Your task to perform on an android device: Go to sound settings Image 0: 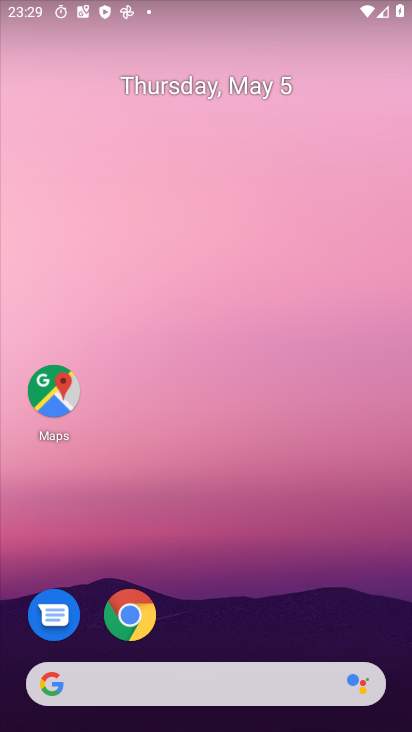
Step 0: drag from (207, 546) to (232, 148)
Your task to perform on an android device: Go to sound settings Image 1: 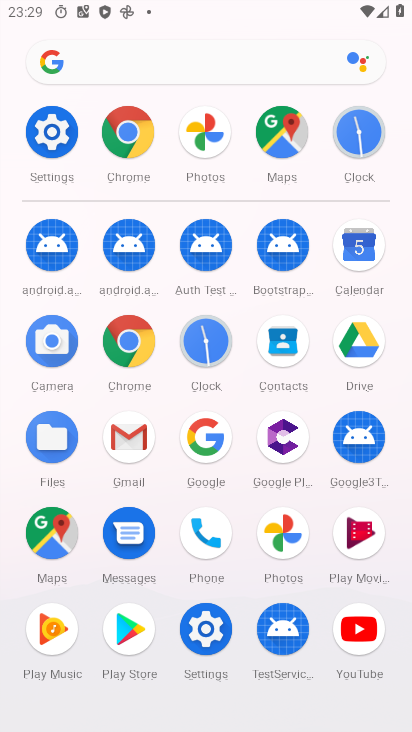
Step 1: click (55, 125)
Your task to perform on an android device: Go to sound settings Image 2: 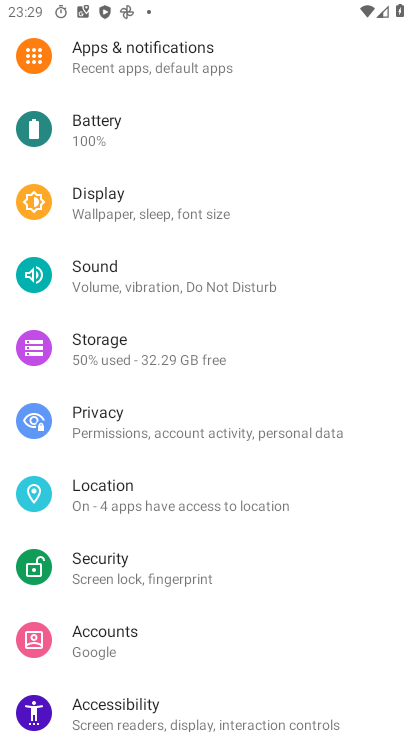
Step 2: click (107, 281)
Your task to perform on an android device: Go to sound settings Image 3: 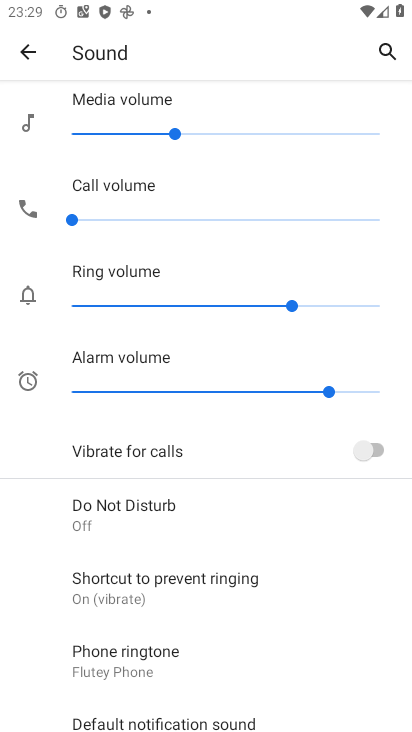
Step 3: task complete